Your task to perform on an android device: Go to display settings Image 0: 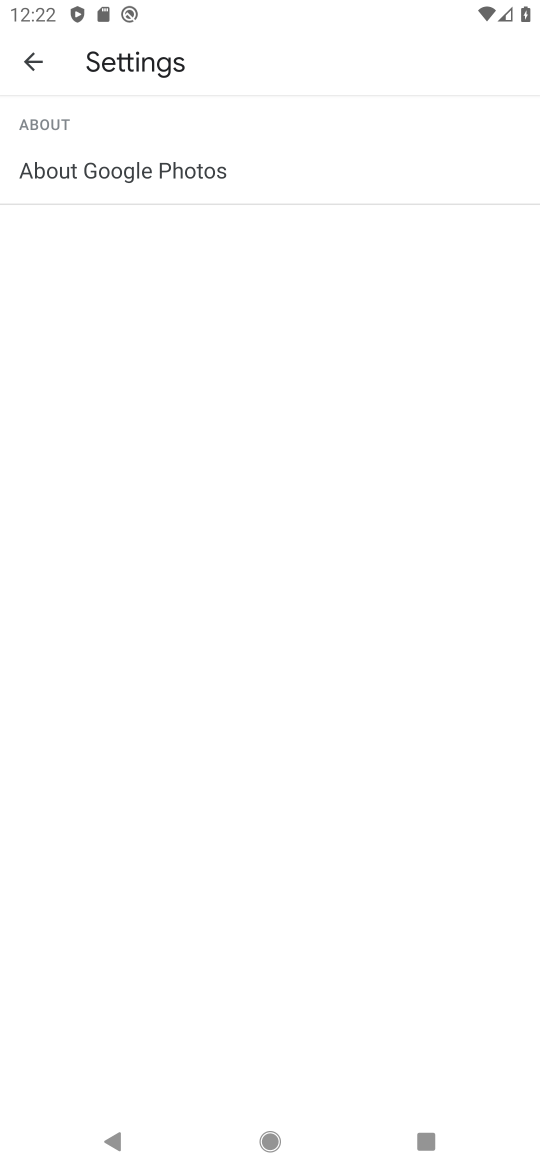
Step 0: press home button
Your task to perform on an android device: Go to display settings Image 1: 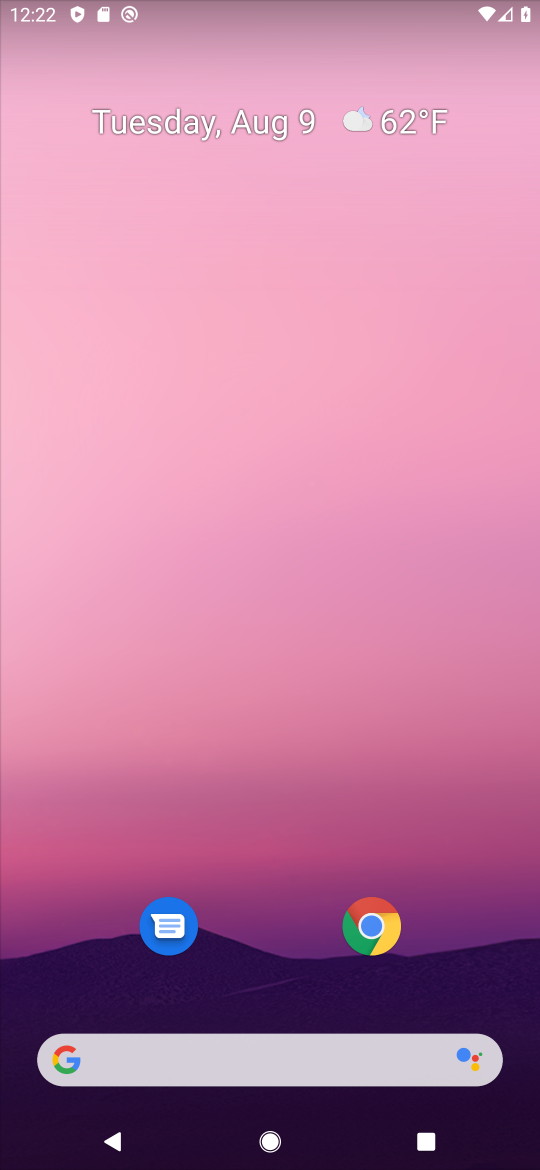
Step 1: drag from (67, 895) to (328, 200)
Your task to perform on an android device: Go to display settings Image 2: 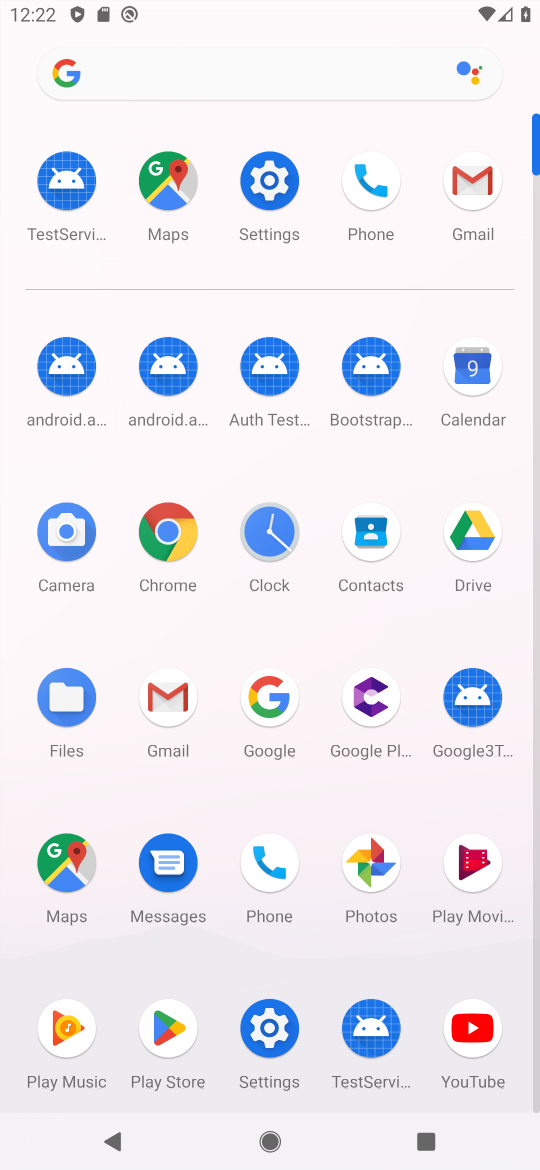
Step 2: click (258, 198)
Your task to perform on an android device: Go to display settings Image 3: 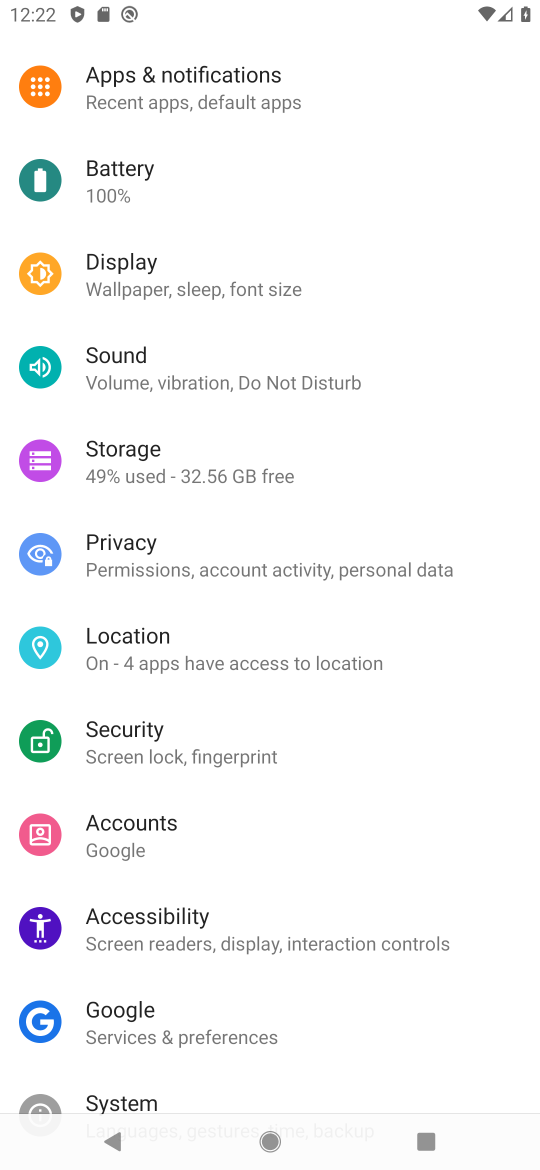
Step 3: click (123, 288)
Your task to perform on an android device: Go to display settings Image 4: 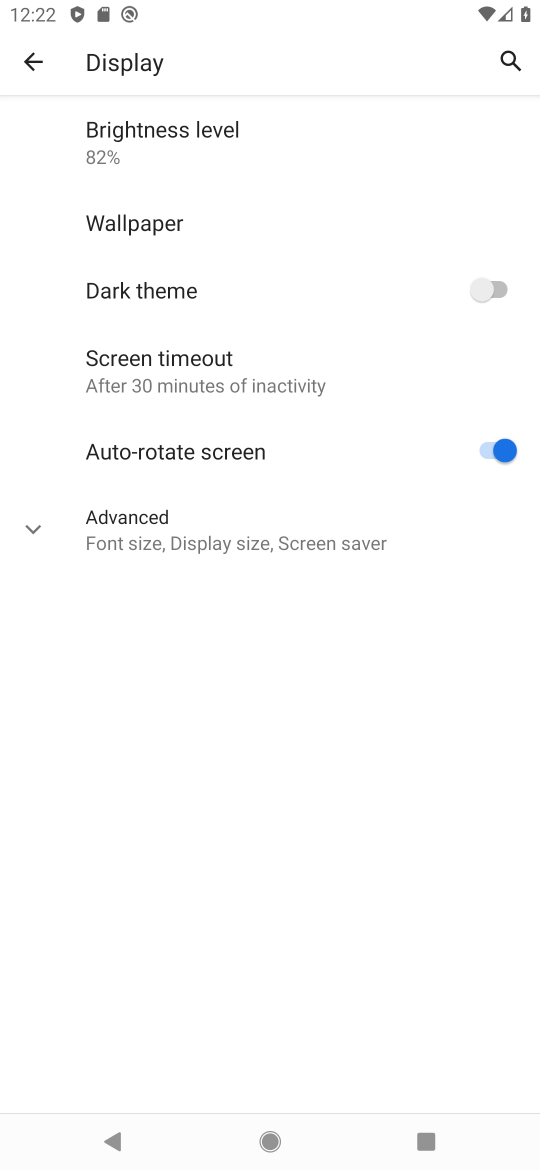
Step 4: task complete